Your task to perform on an android device: change notifications settings Image 0: 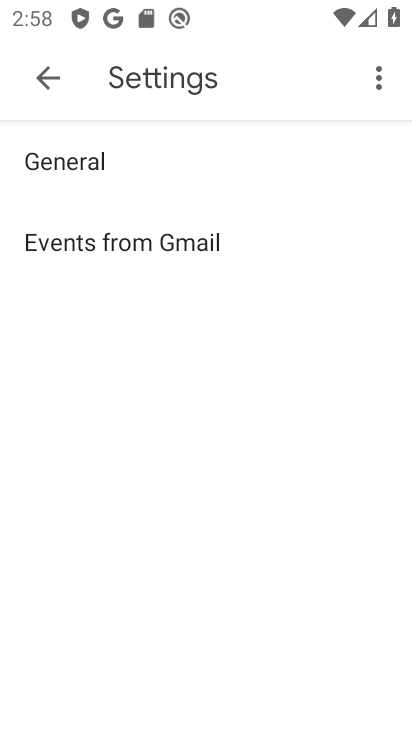
Step 0: press home button
Your task to perform on an android device: change notifications settings Image 1: 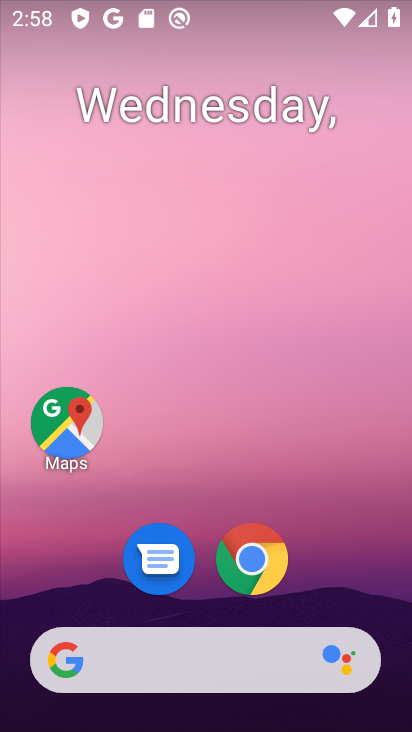
Step 1: drag from (209, 599) to (265, 22)
Your task to perform on an android device: change notifications settings Image 2: 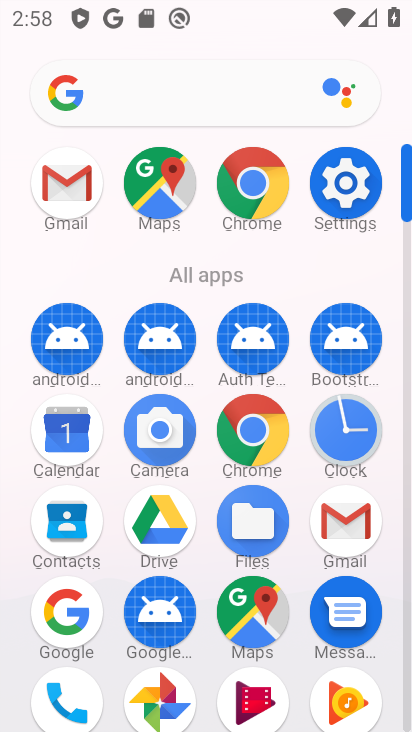
Step 2: click (355, 198)
Your task to perform on an android device: change notifications settings Image 3: 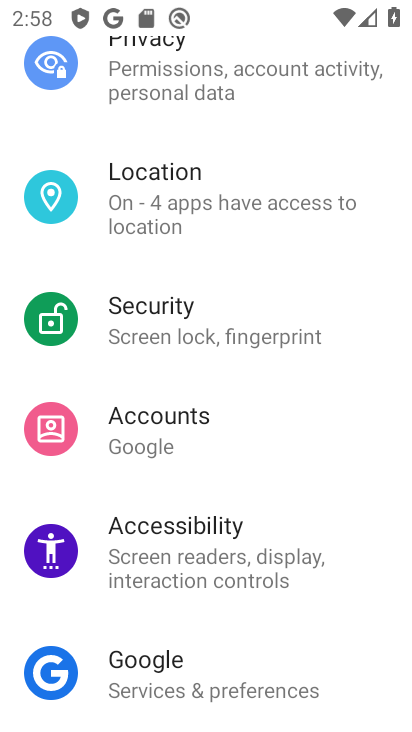
Step 3: drag from (240, 172) to (201, 613)
Your task to perform on an android device: change notifications settings Image 4: 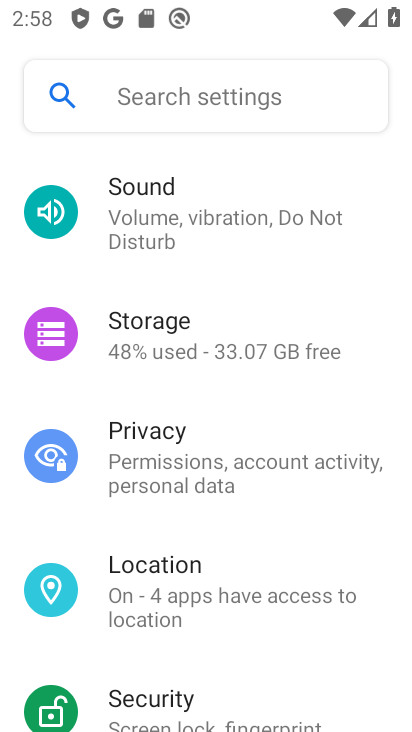
Step 4: drag from (209, 262) to (217, 731)
Your task to perform on an android device: change notifications settings Image 5: 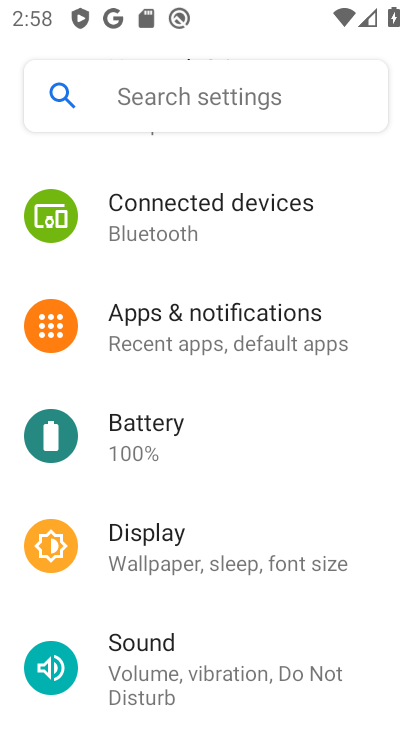
Step 5: click (248, 341)
Your task to perform on an android device: change notifications settings Image 6: 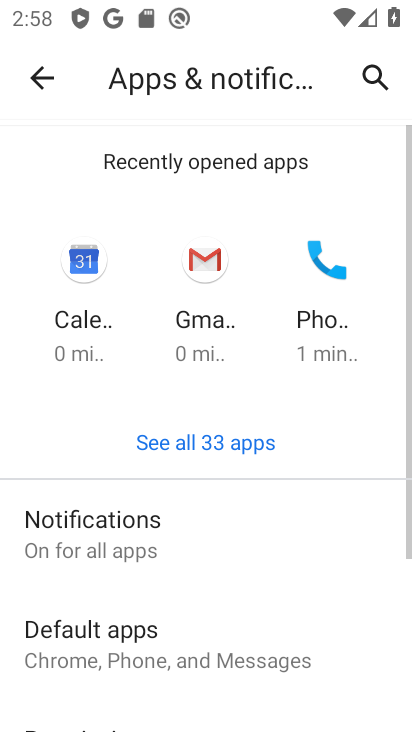
Step 6: click (134, 559)
Your task to perform on an android device: change notifications settings Image 7: 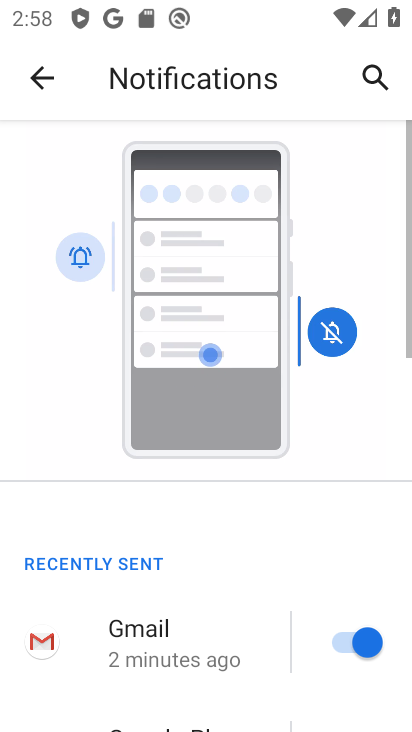
Step 7: drag from (121, 595) to (233, 4)
Your task to perform on an android device: change notifications settings Image 8: 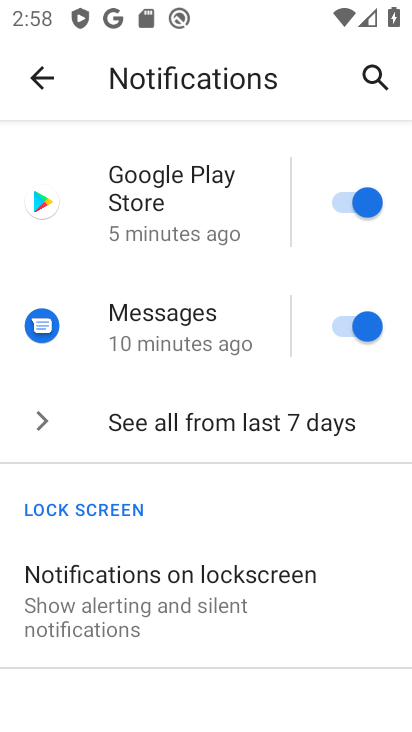
Step 8: click (168, 429)
Your task to perform on an android device: change notifications settings Image 9: 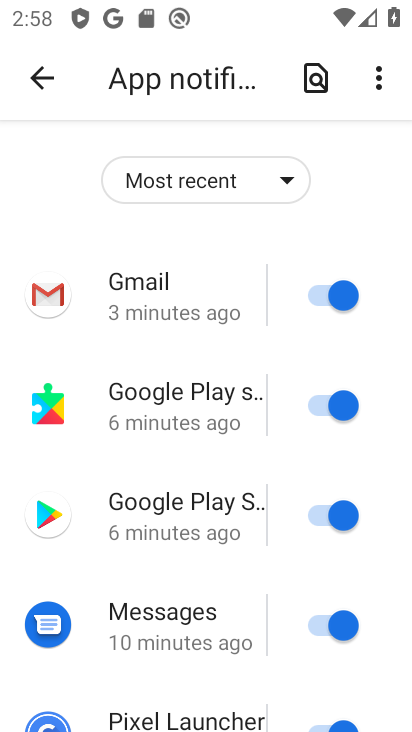
Step 9: click (324, 290)
Your task to perform on an android device: change notifications settings Image 10: 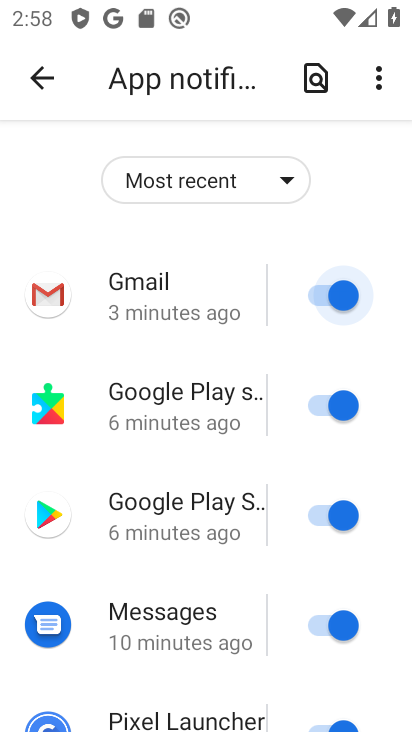
Step 10: click (322, 390)
Your task to perform on an android device: change notifications settings Image 11: 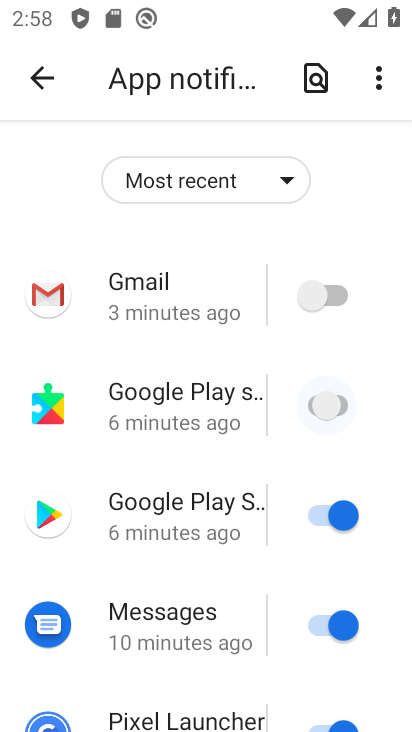
Step 11: click (311, 539)
Your task to perform on an android device: change notifications settings Image 12: 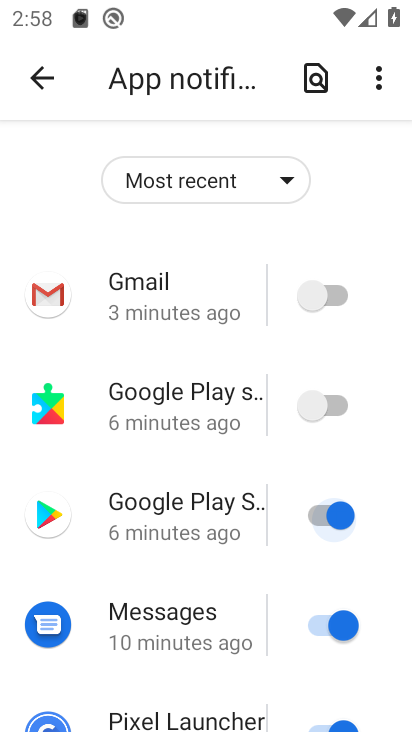
Step 12: click (314, 637)
Your task to perform on an android device: change notifications settings Image 13: 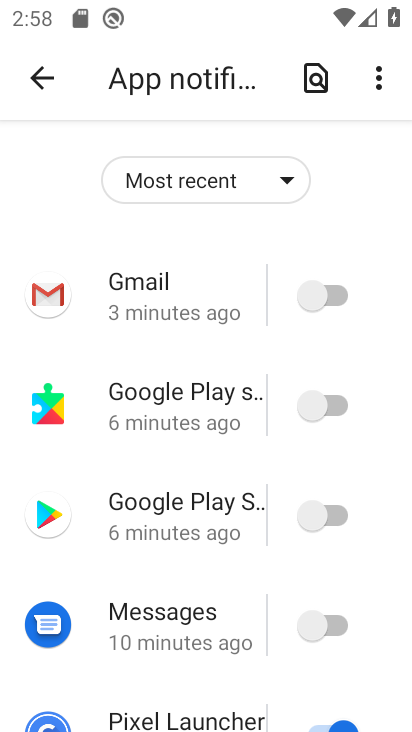
Step 13: drag from (279, 680) to (404, 173)
Your task to perform on an android device: change notifications settings Image 14: 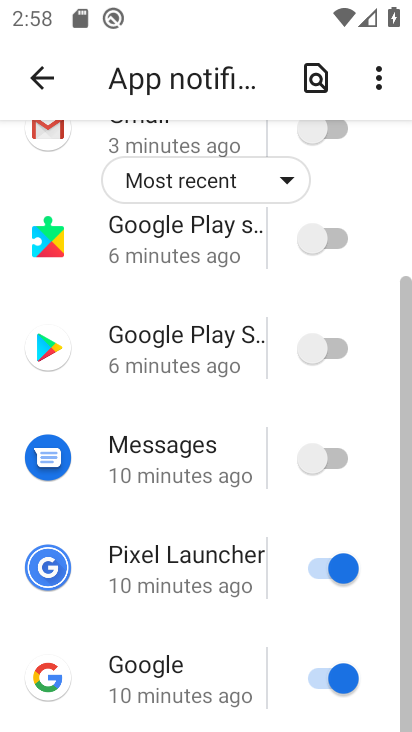
Step 14: click (314, 459)
Your task to perform on an android device: change notifications settings Image 15: 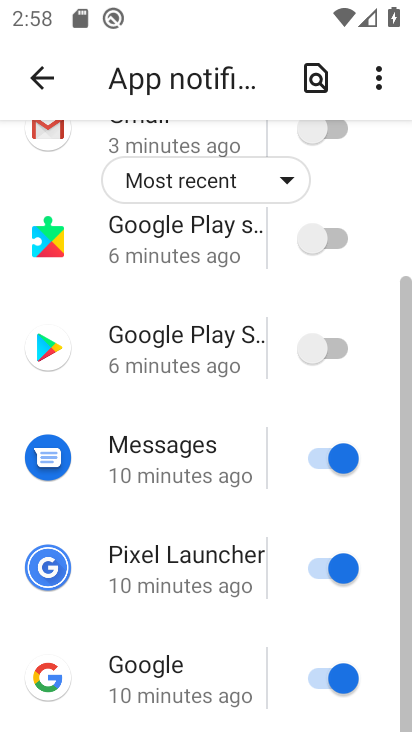
Step 15: click (319, 573)
Your task to perform on an android device: change notifications settings Image 16: 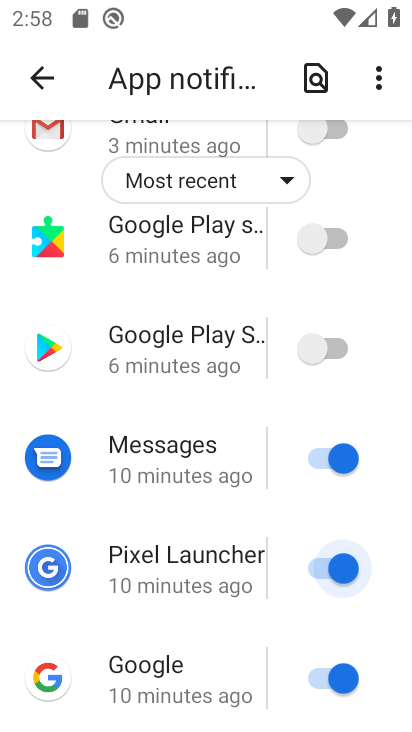
Step 16: click (328, 677)
Your task to perform on an android device: change notifications settings Image 17: 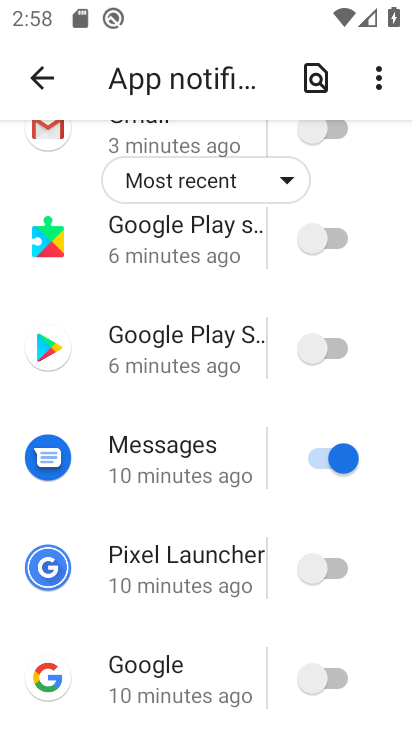
Step 17: click (328, 455)
Your task to perform on an android device: change notifications settings Image 18: 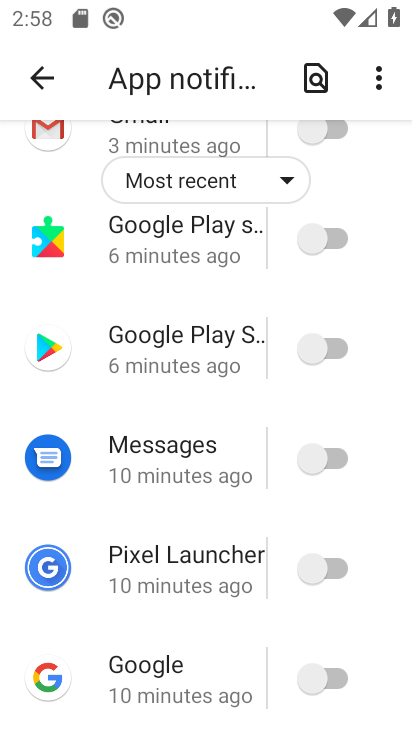
Step 18: drag from (221, 620) to (257, 302)
Your task to perform on an android device: change notifications settings Image 19: 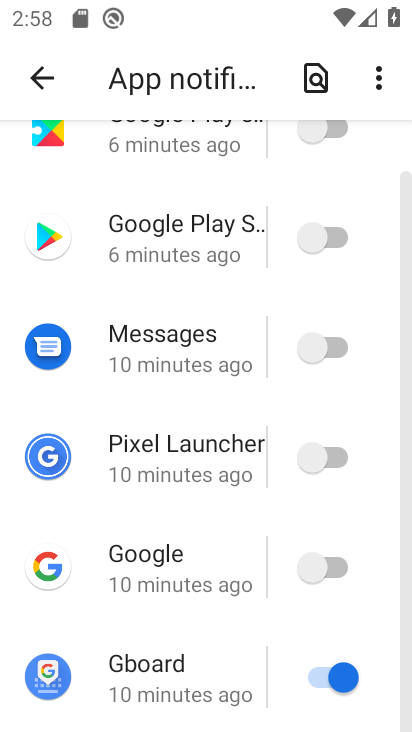
Step 19: click (299, 686)
Your task to perform on an android device: change notifications settings Image 20: 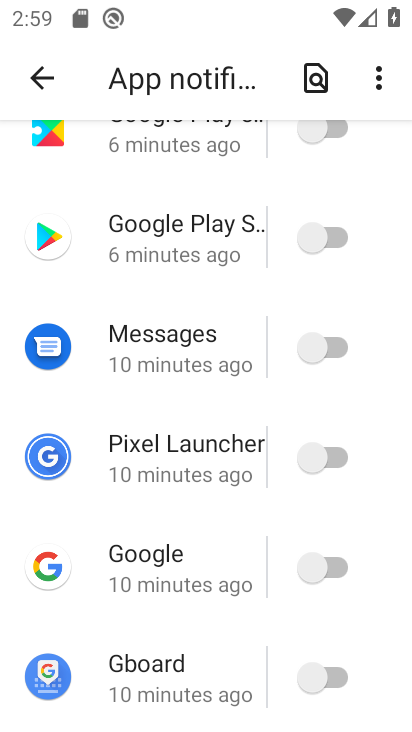
Step 20: task complete